Your task to perform on an android device: turn off picture-in-picture Image 0: 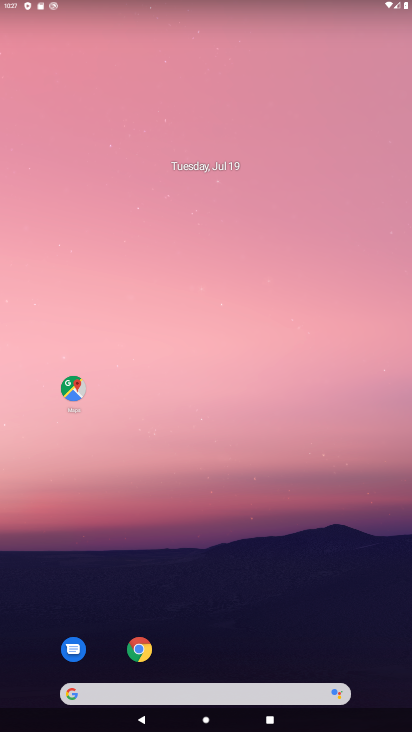
Step 0: drag from (209, 651) to (232, 64)
Your task to perform on an android device: turn off picture-in-picture Image 1: 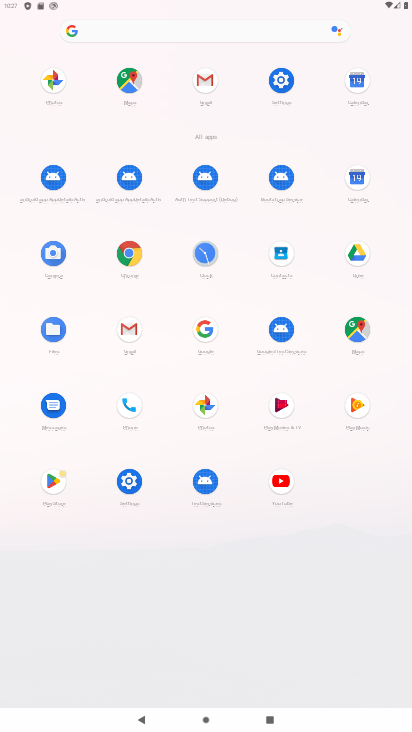
Step 1: click (127, 473)
Your task to perform on an android device: turn off picture-in-picture Image 2: 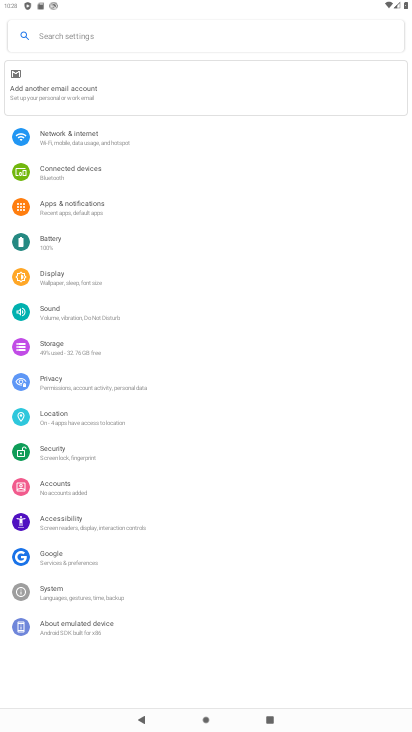
Step 2: click (76, 218)
Your task to perform on an android device: turn off picture-in-picture Image 3: 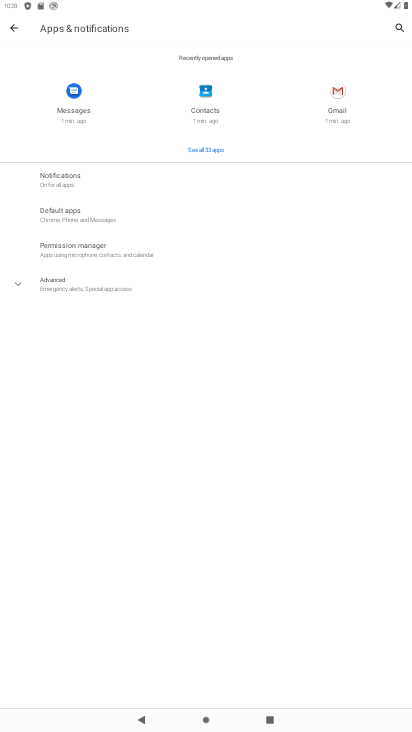
Step 3: click (117, 287)
Your task to perform on an android device: turn off picture-in-picture Image 4: 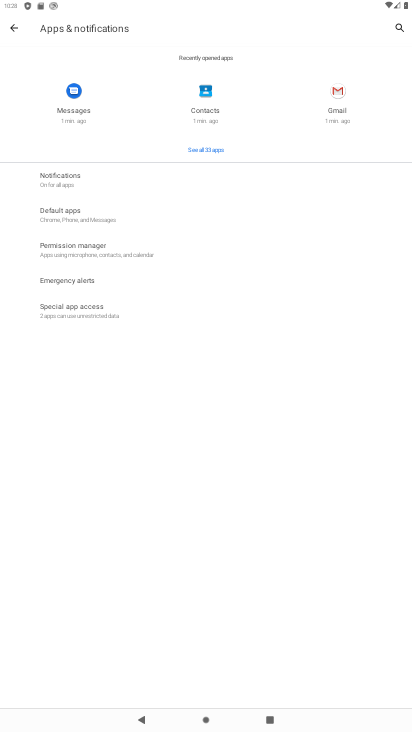
Step 4: click (114, 315)
Your task to perform on an android device: turn off picture-in-picture Image 5: 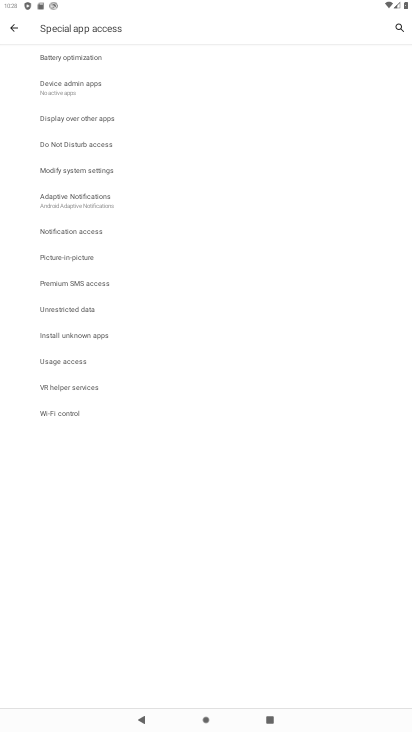
Step 5: click (109, 264)
Your task to perform on an android device: turn off picture-in-picture Image 6: 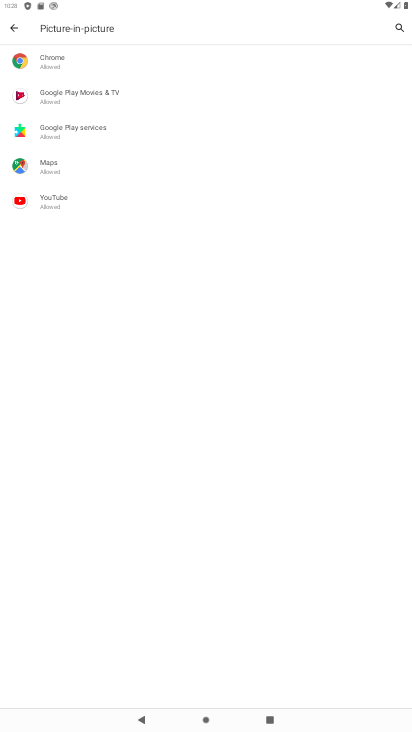
Step 6: click (121, 74)
Your task to perform on an android device: turn off picture-in-picture Image 7: 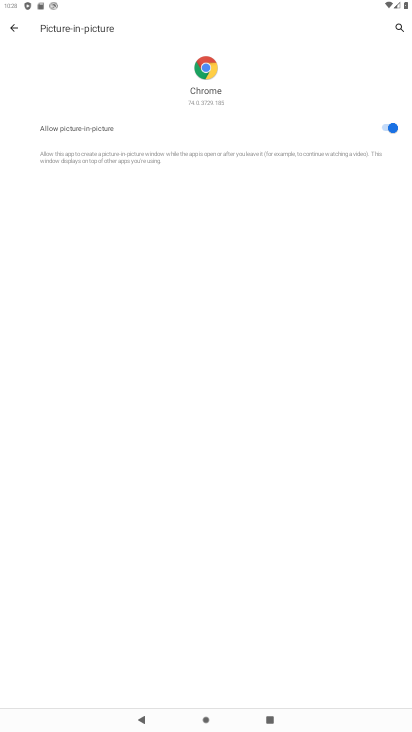
Step 7: click (375, 127)
Your task to perform on an android device: turn off picture-in-picture Image 8: 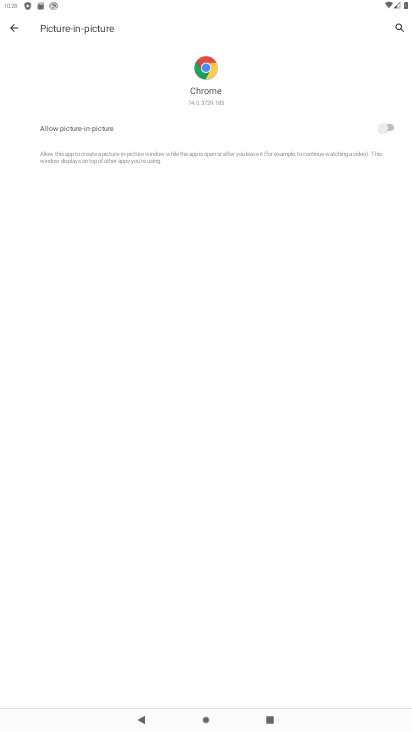
Step 8: press back button
Your task to perform on an android device: turn off picture-in-picture Image 9: 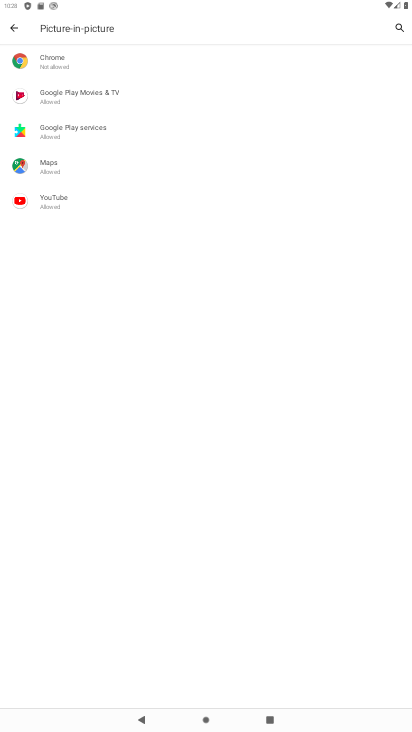
Step 9: click (66, 112)
Your task to perform on an android device: turn off picture-in-picture Image 10: 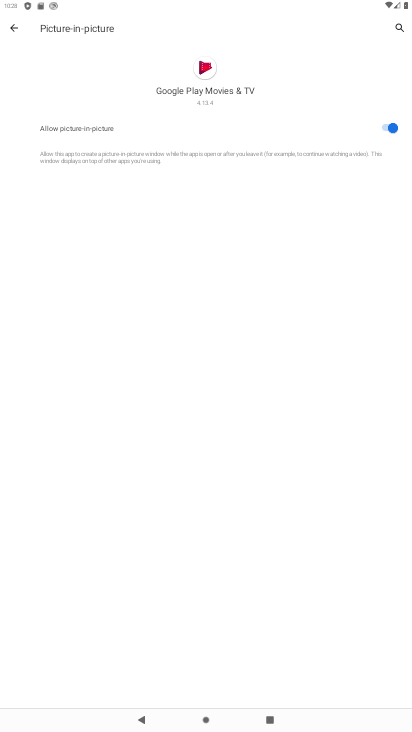
Step 10: click (379, 126)
Your task to perform on an android device: turn off picture-in-picture Image 11: 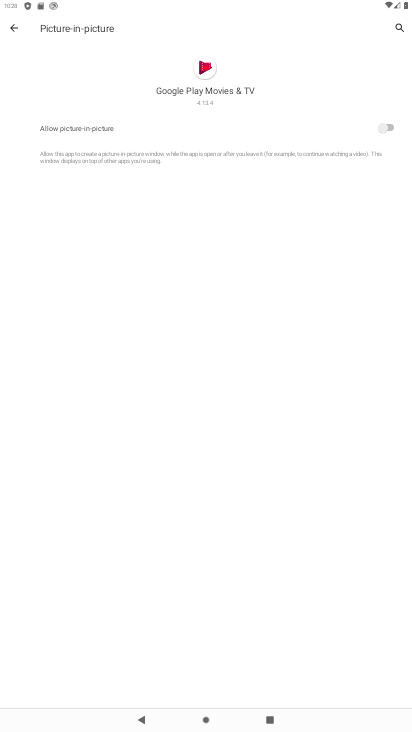
Step 11: press back button
Your task to perform on an android device: turn off picture-in-picture Image 12: 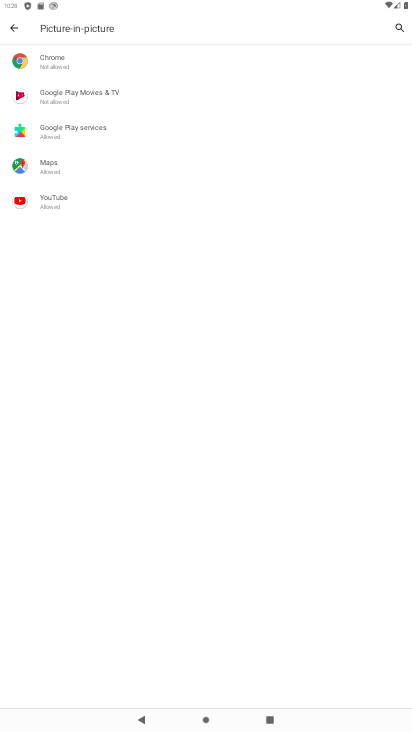
Step 12: click (148, 134)
Your task to perform on an android device: turn off picture-in-picture Image 13: 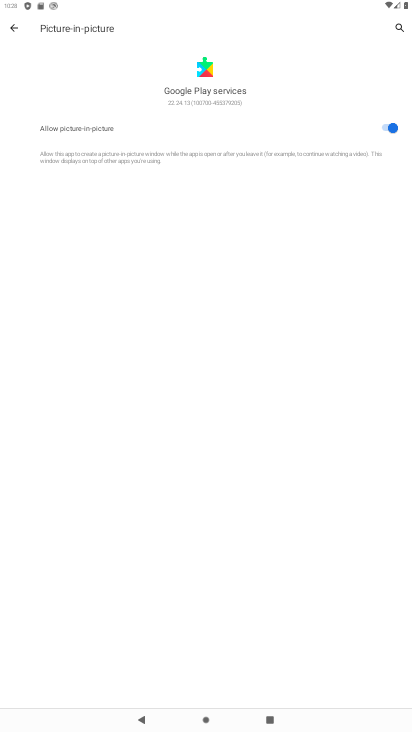
Step 13: click (387, 119)
Your task to perform on an android device: turn off picture-in-picture Image 14: 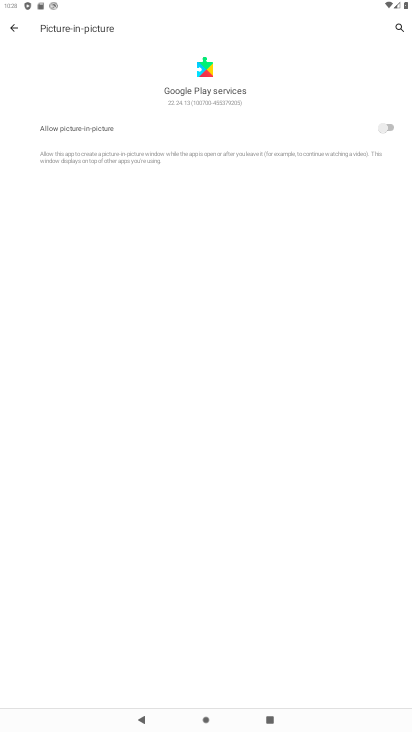
Step 14: press back button
Your task to perform on an android device: turn off picture-in-picture Image 15: 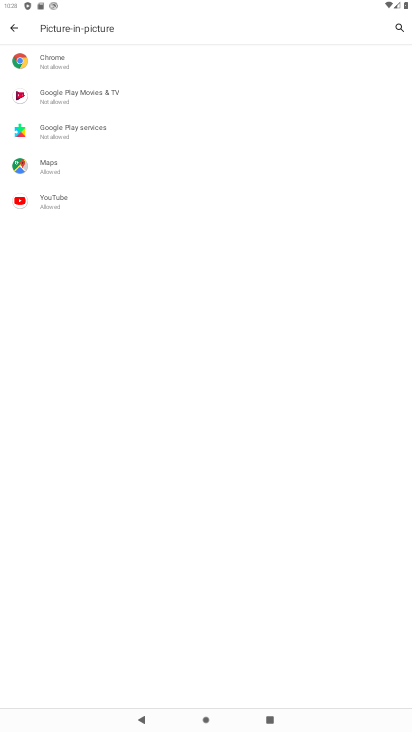
Step 15: click (65, 161)
Your task to perform on an android device: turn off picture-in-picture Image 16: 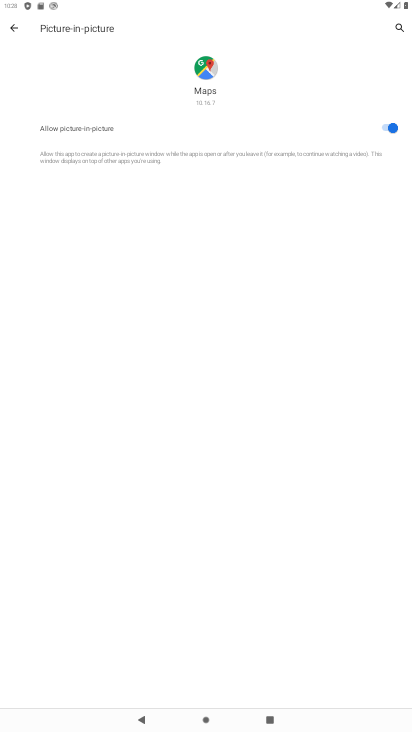
Step 16: click (381, 122)
Your task to perform on an android device: turn off picture-in-picture Image 17: 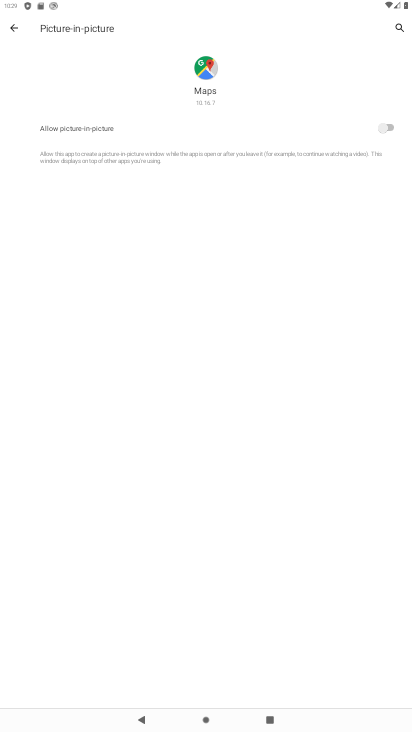
Step 17: press back button
Your task to perform on an android device: turn off picture-in-picture Image 18: 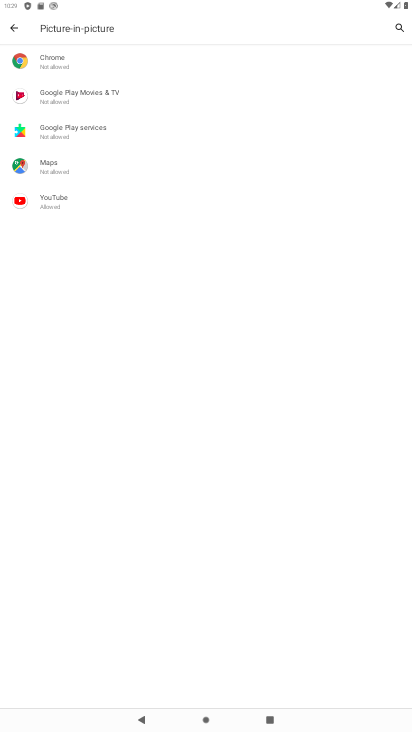
Step 18: click (83, 218)
Your task to perform on an android device: turn off picture-in-picture Image 19: 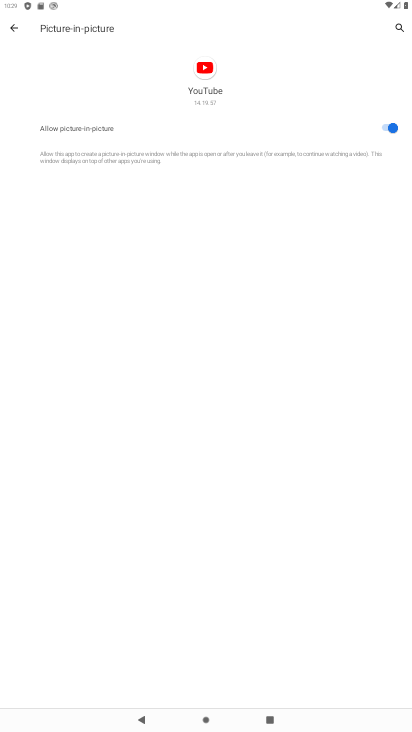
Step 19: click (378, 129)
Your task to perform on an android device: turn off picture-in-picture Image 20: 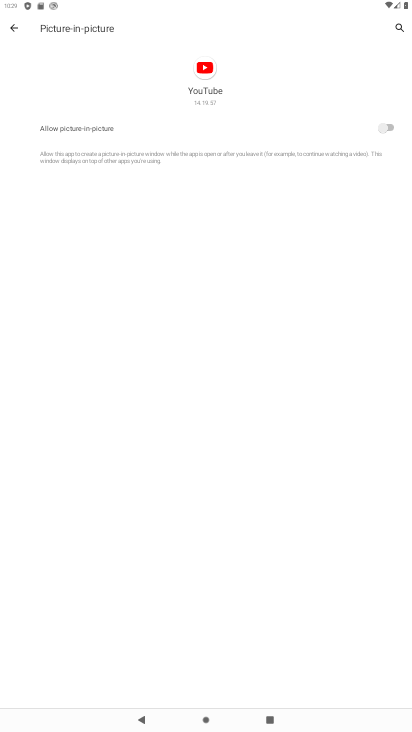
Step 20: task complete